Your task to perform on an android device: change notifications settings Image 0: 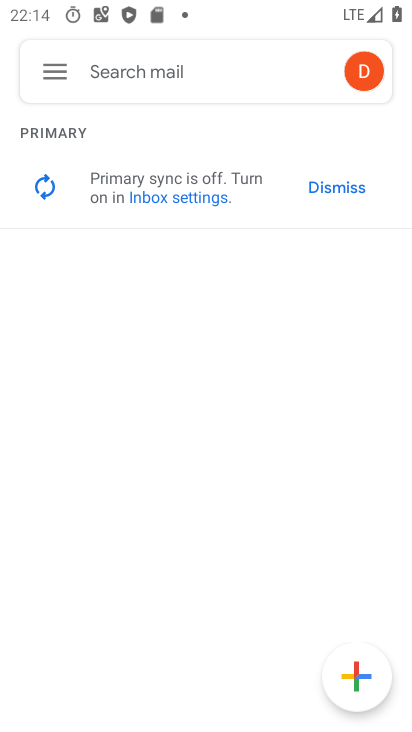
Step 0: press home button
Your task to perform on an android device: change notifications settings Image 1: 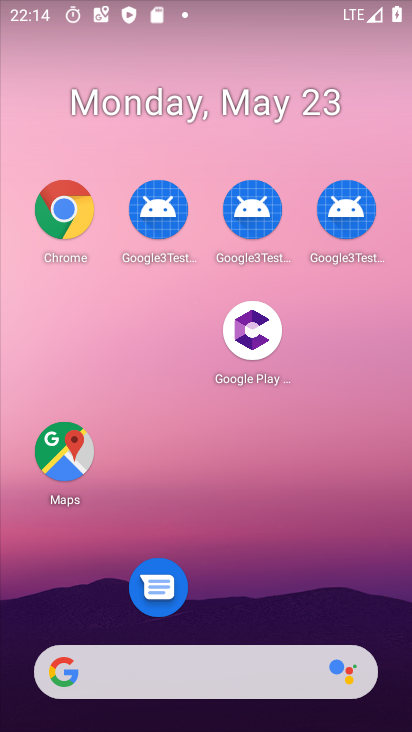
Step 1: drag from (287, 618) to (277, 82)
Your task to perform on an android device: change notifications settings Image 2: 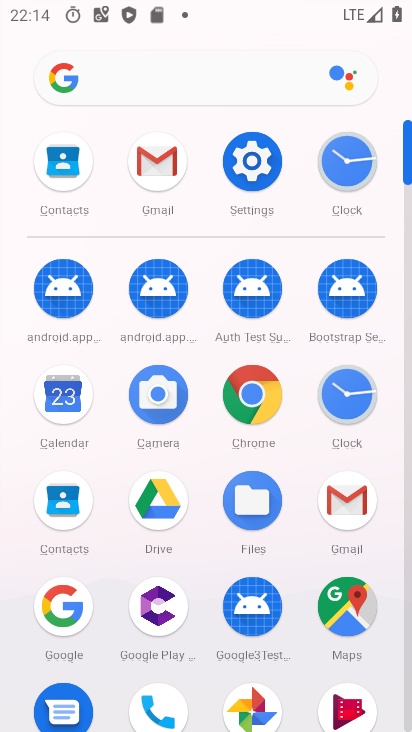
Step 2: click (260, 169)
Your task to perform on an android device: change notifications settings Image 3: 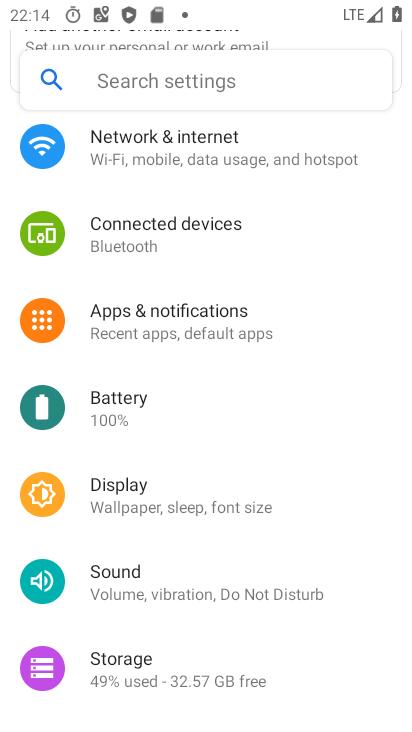
Step 3: click (210, 328)
Your task to perform on an android device: change notifications settings Image 4: 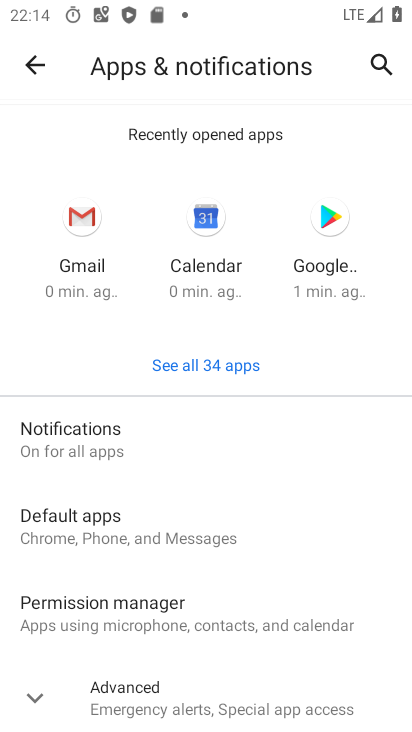
Step 4: click (168, 452)
Your task to perform on an android device: change notifications settings Image 5: 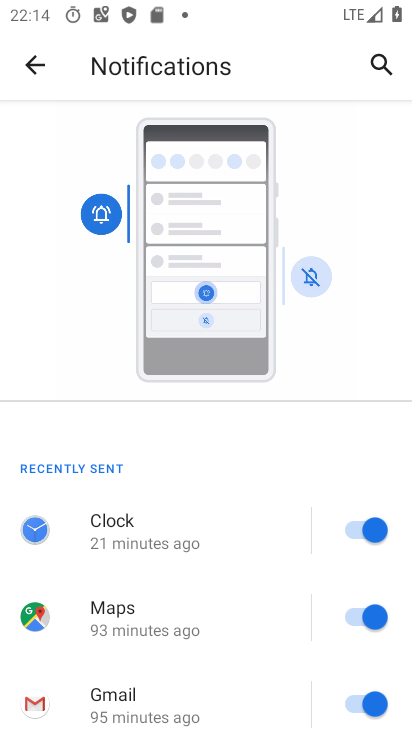
Step 5: click (355, 527)
Your task to perform on an android device: change notifications settings Image 6: 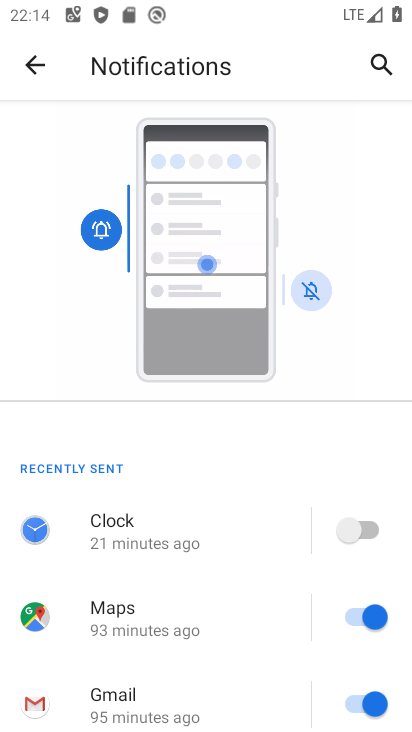
Step 6: task complete